Your task to perform on an android device: Do I have any events this weekend? Image 0: 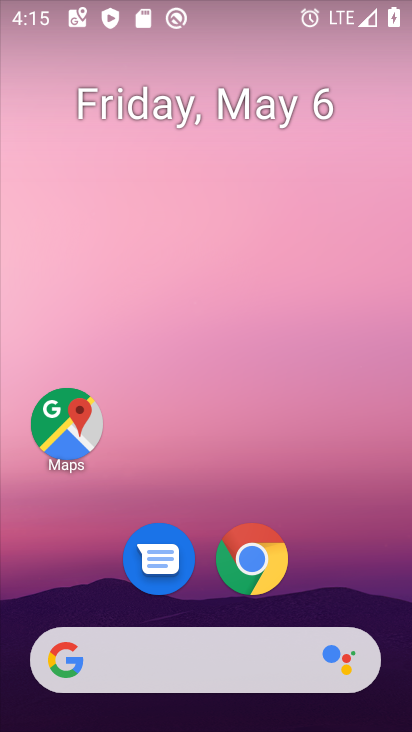
Step 0: drag from (202, 615) to (208, 396)
Your task to perform on an android device: Do I have any events this weekend? Image 1: 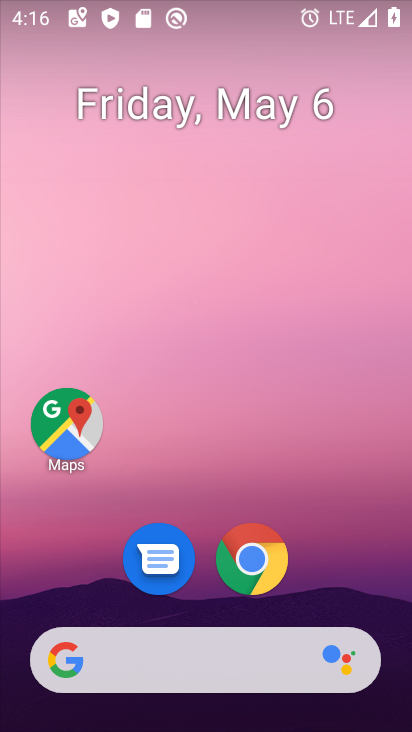
Step 1: drag from (194, 636) to (237, 194)
Your task to perform on an android device: Do I have any events this weekend? Image 2: 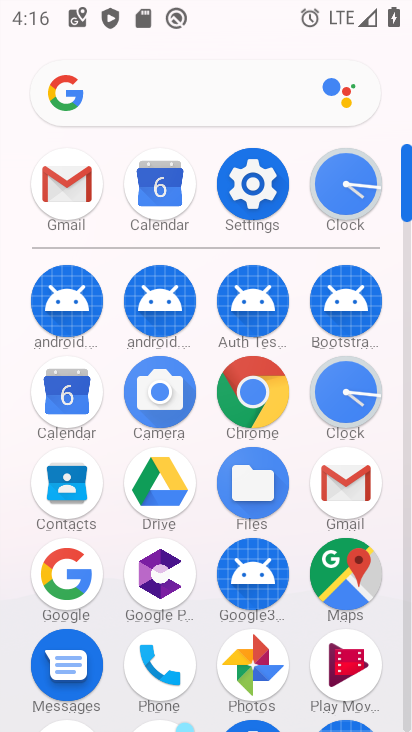
Step 2: click (69, 402)
Your task to perform on an android device: Do I have any events this weekend? Image 3: 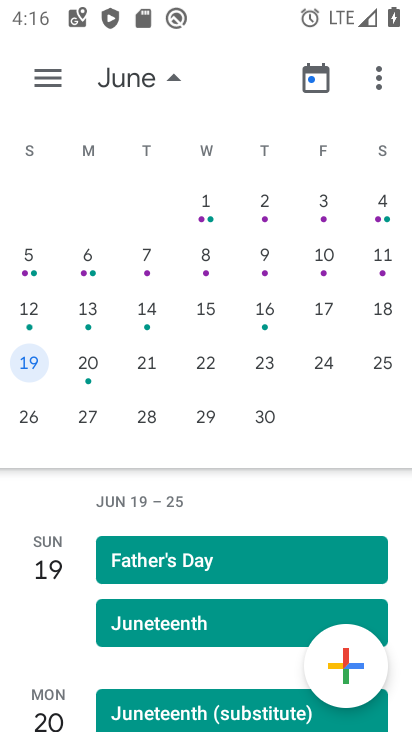
Step 3: click (127, 81)
Your task to perform on an android device: Do I have any events this weekend? Image 4: 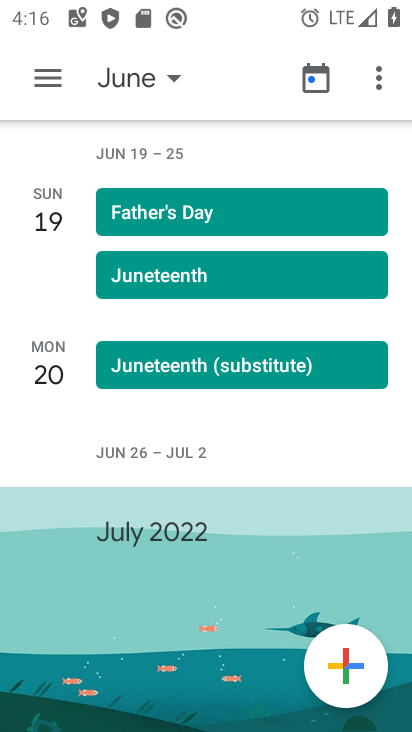
Step 4: click (124, 85)
Your task to perform on an android device: Do I have any events this weekend? Image 5: 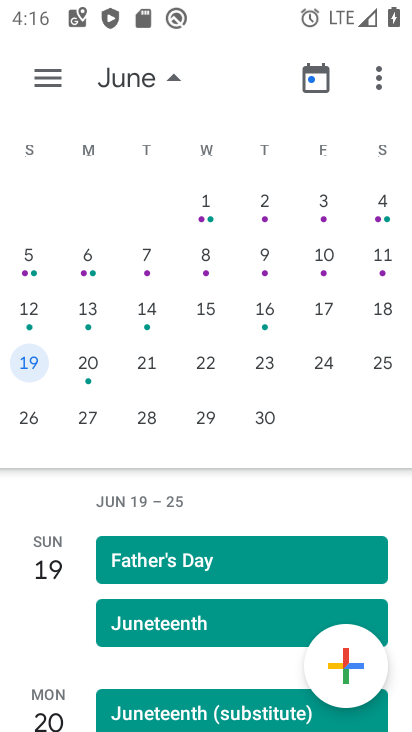
Step 5: drag from (10, 244) to (356, 240)
Your task to perform on an android device: Do I have any events this weekend? Image 6: 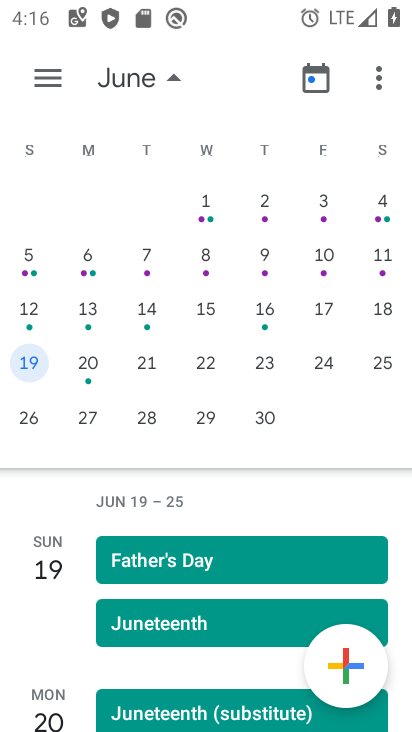
Step 6: drag from (61, 288) to (410, 278)
Your task to perform on an android device: Do I have any events this weekend? Image 7: 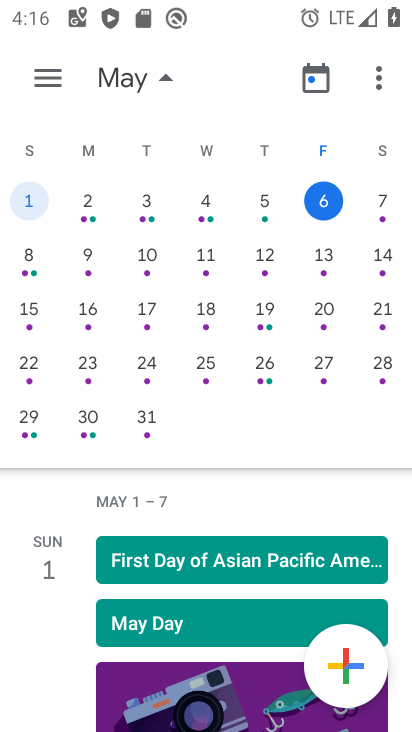
Step 7: click (31, 263)
Your task to perform on an android device: Do I have any events this weekend? Image 8: 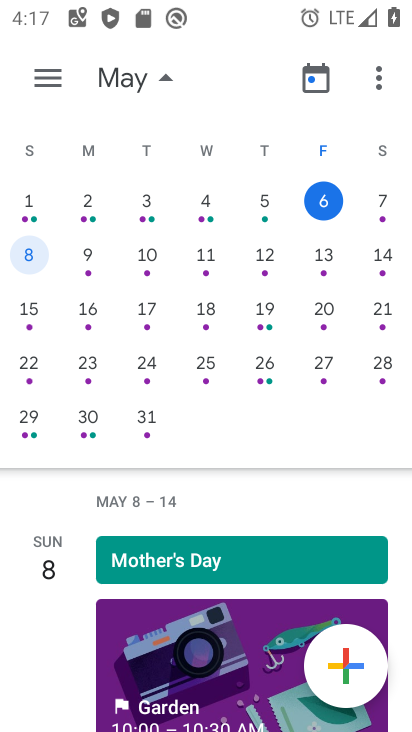
Step 8: click (38, 252)
Your task to perform on an android device: Do I have any events this weekend? Image 9: 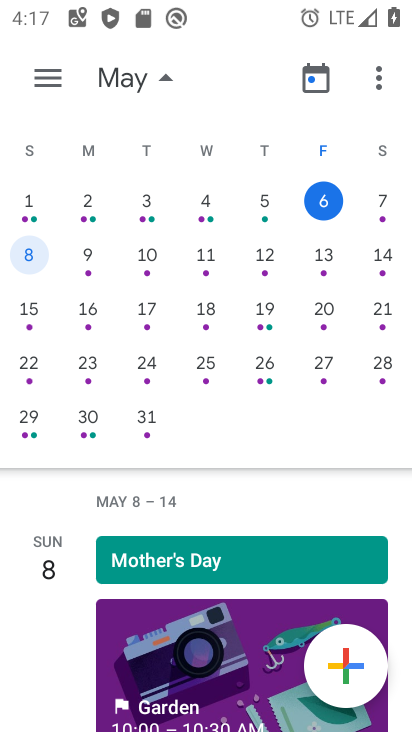
Step 9: task complete